Your task to perform on an android device: check google app version Image 0: 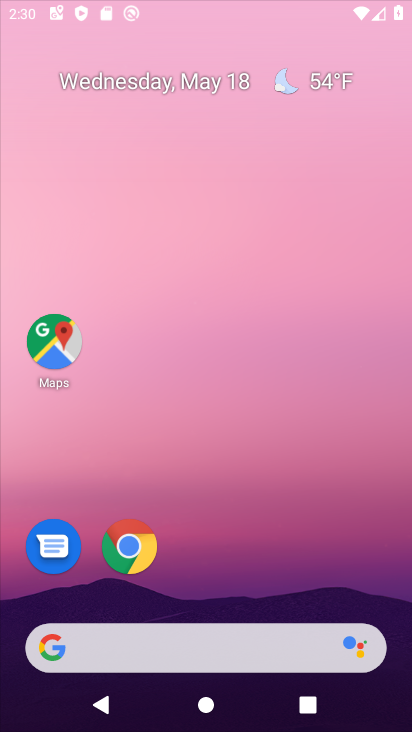
Step 0: press home button
Your task to perform on an android device: check google app version Image 1: 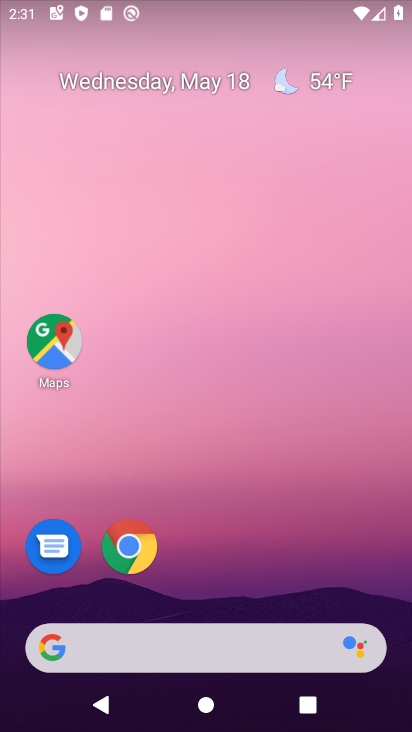
Step 1: drag from (243, 558) to (258, 101)
Your task to perform on an android device: check google app version Image 2: 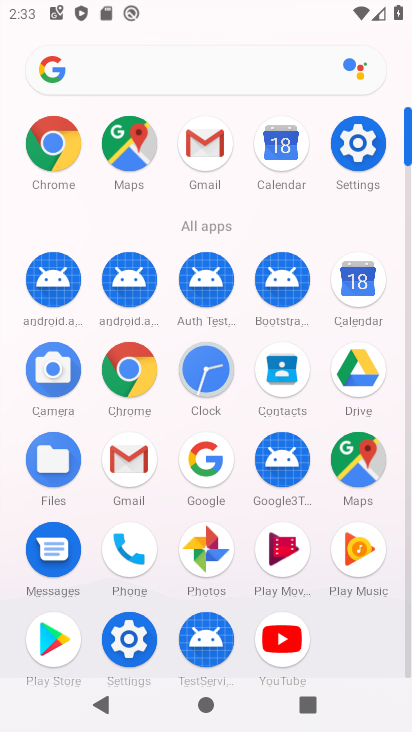
Step 2: click (194, 451)
Your task to perform on an android device: check google app version Image 3: 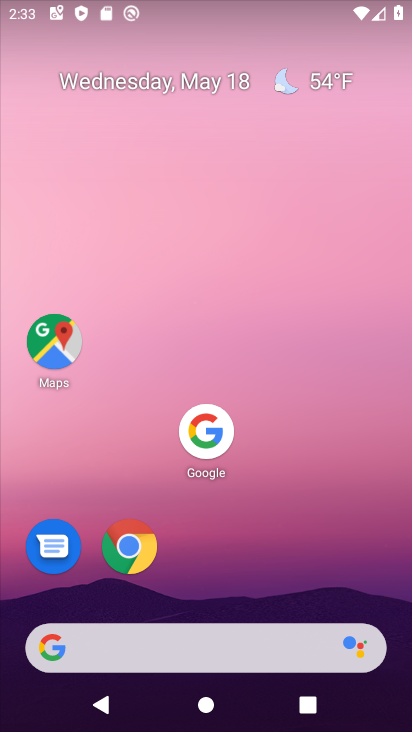
Step 3: click (289, 402)
Your task to perform on an android device: check google app version Image 4: 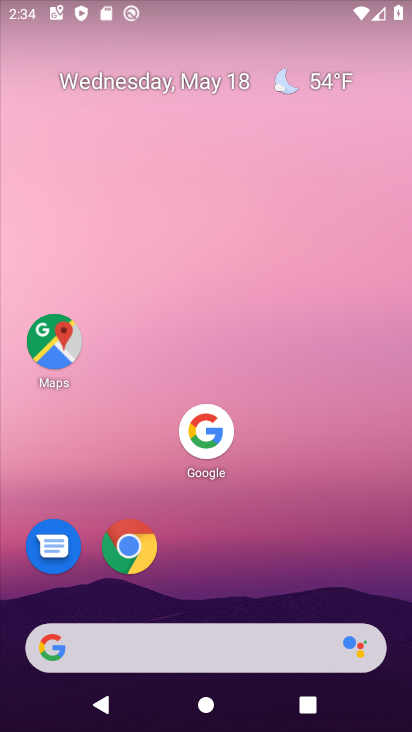
Step 4: click (211, 429)
Your task to perform on an android device: check google app version Image 5: 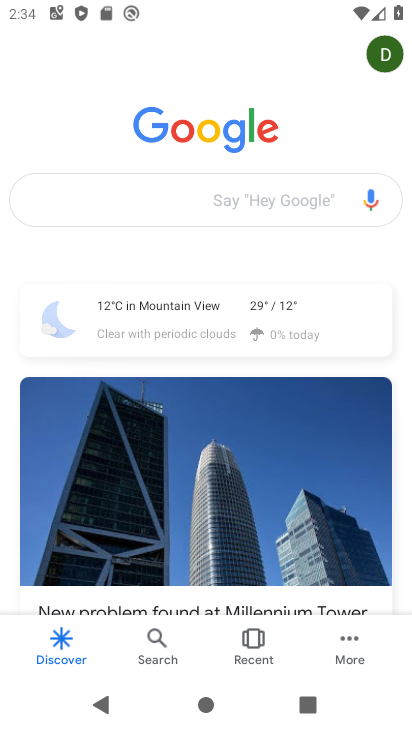
Step 5: click (334, 650)
Your task to perform on an android device: check google app version Image 6: 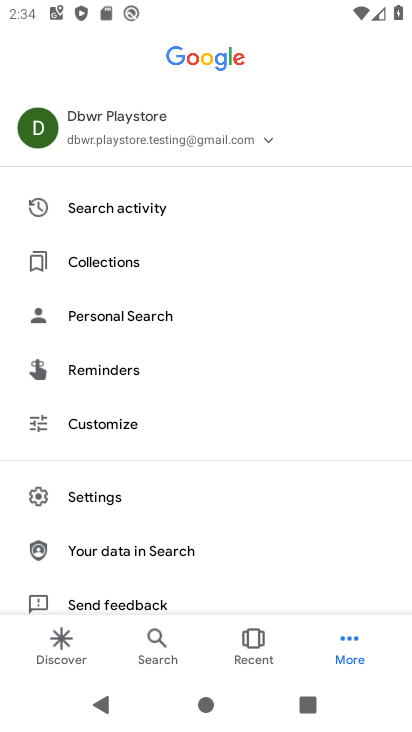
Step 6: drag from (195, 564) to (149, 19)
Your task to perform on an android device: check google app version Image 7: 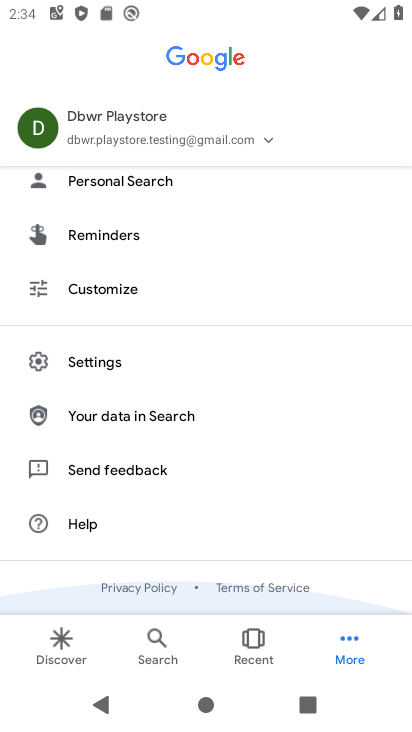
Step 7: drag from (94, 520) to (56, 200)
Your task to perform on an android device: check google app version Image 8: 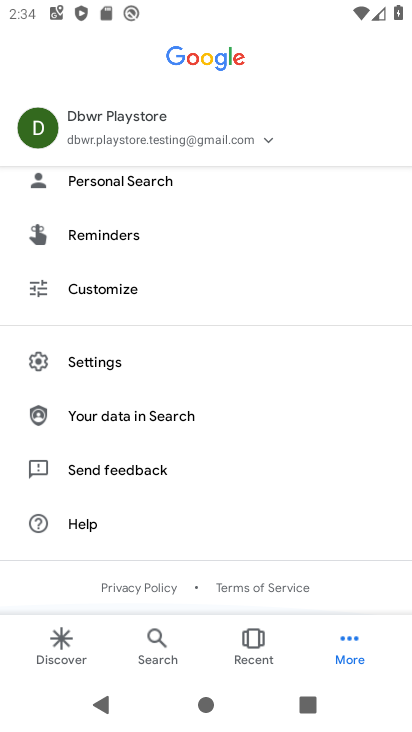
Step 8: drag from (88, 518) to (142, 276)
Your task to perform on an android device: check google app version Image 9: 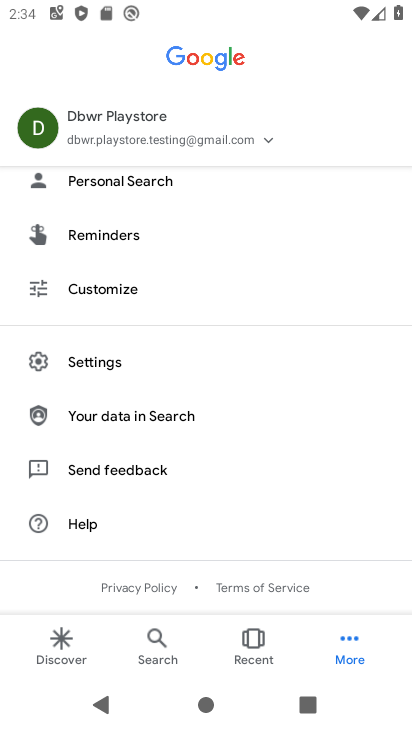
Step 9: click (94, 365)
Your task to perform on an android device: check google app version Image 10: 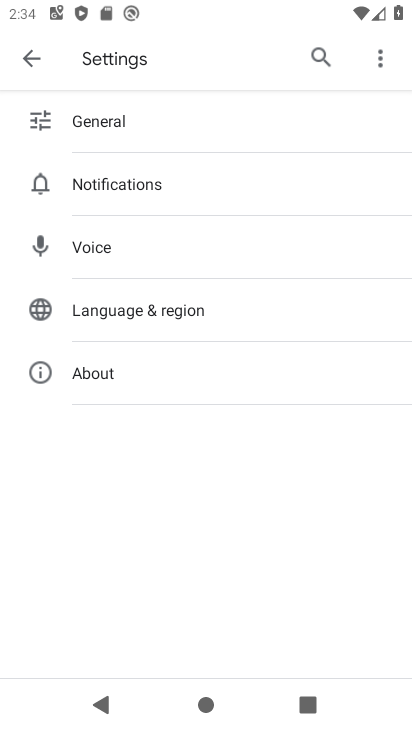
Step 10: click (129, 393)
Your task to perform on an android device: check google app version Image 11: 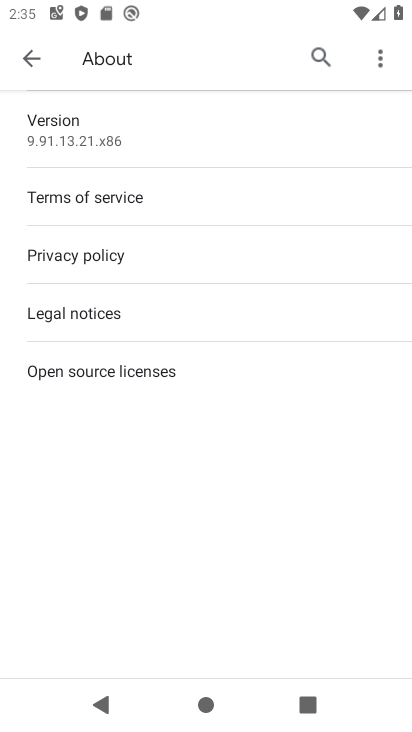
Step 11: click (89, 358)
Your task to perform on an android device: check google app version Image 12: 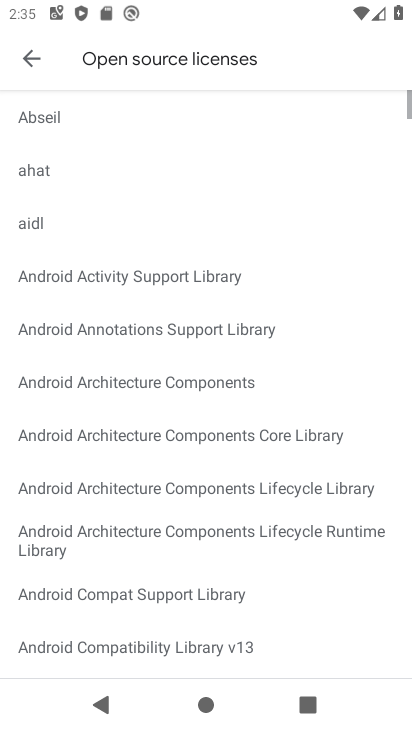
Step 12: task complete